Your task to perform on an android device: change timer sound Image 0: 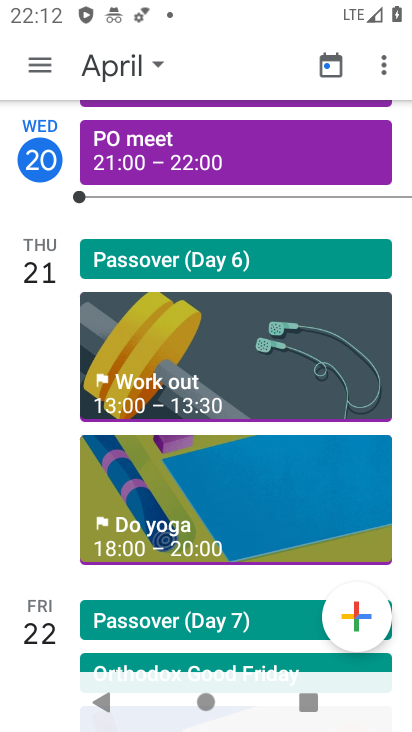
Step 0: press home button
Your task to perform on an android device: change timer sound Image 1: 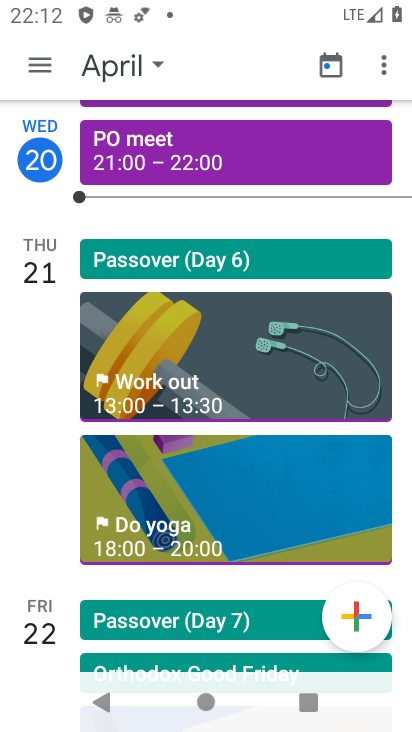
Step 1: press home button
Your task to perform on an android device: change timer sound Image 2: 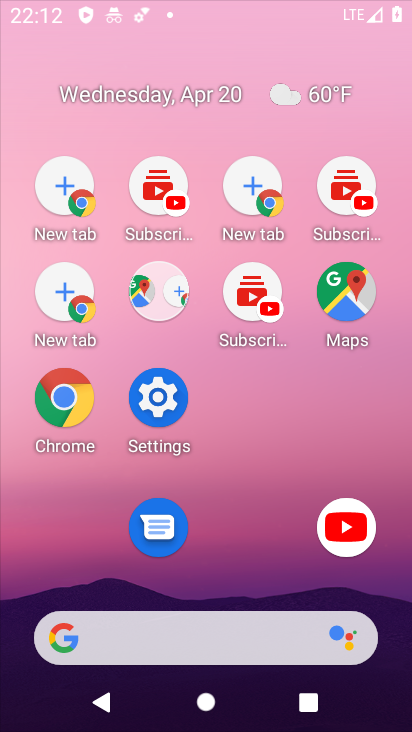
Step 2: press home button
Your task to perform on an android device: change timer sound Image 3: 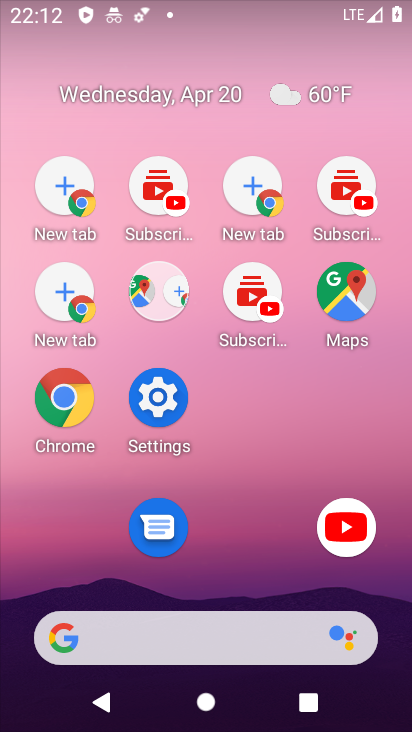
Step 3: drag from (315, 664) to (130, 42)
Your task to perform on an android device: change timer sound Image 4: 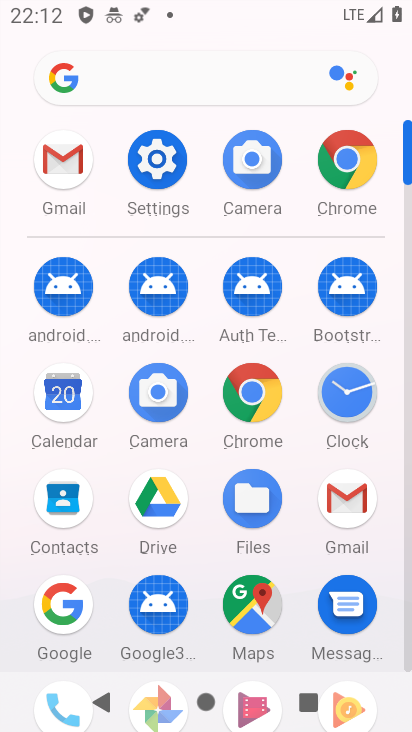
Step 4: click (352, 388)
Your task to perform on an android device: change timer sound Image 5: 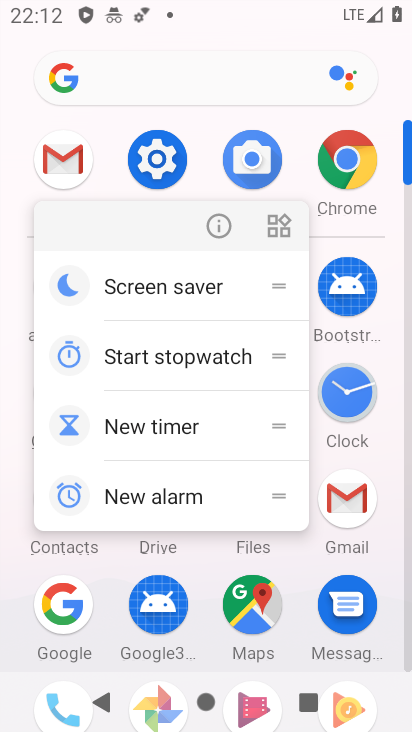
Step 5: click (351, 389)
Your task to perform on an android device: change timer sound Image 6: 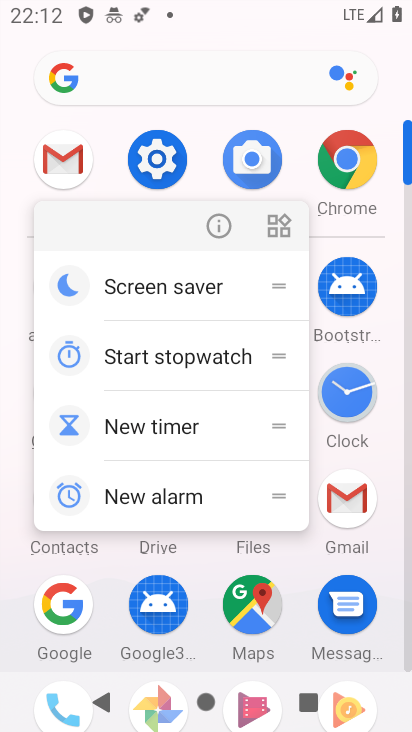
Step 6: click (333, 384)
Your task to perform on an android device: change timer sound Image 7: 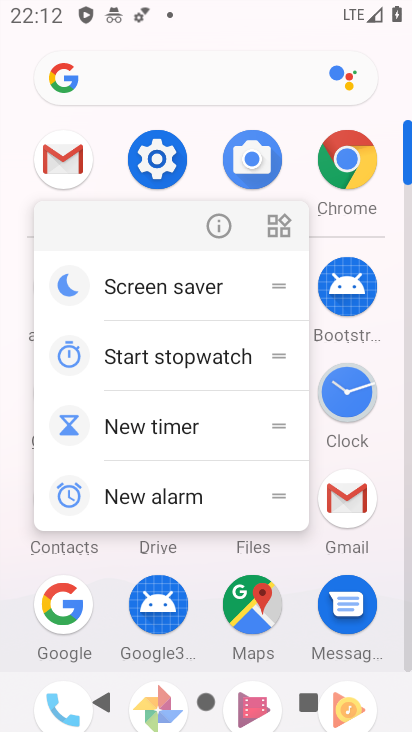
Step 7: click (341, 397)
Your task to perform on an android device: change timer sound Image 8: 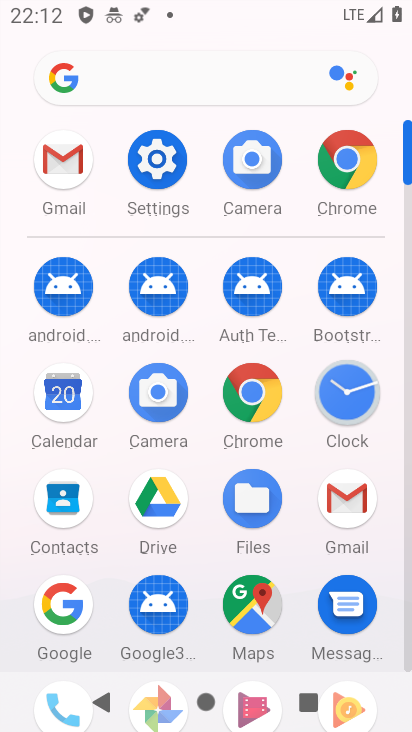
Step 8: click (350, 386)
Your task to perform on an android device: change timer sound Image 9: 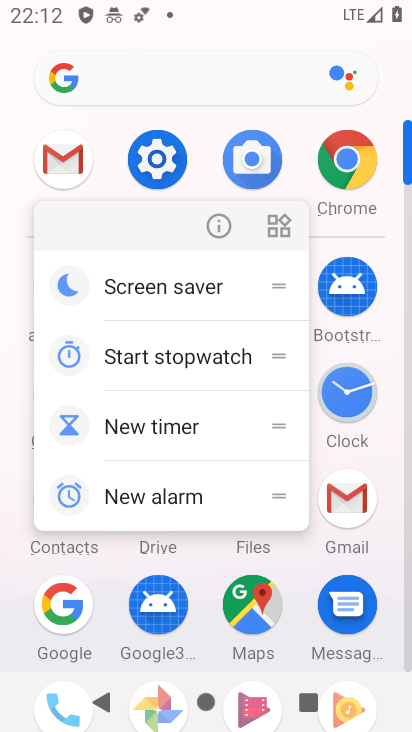
Step 9: click (403, 643)
Your task to perform on an android device: change timer sound Image 10: 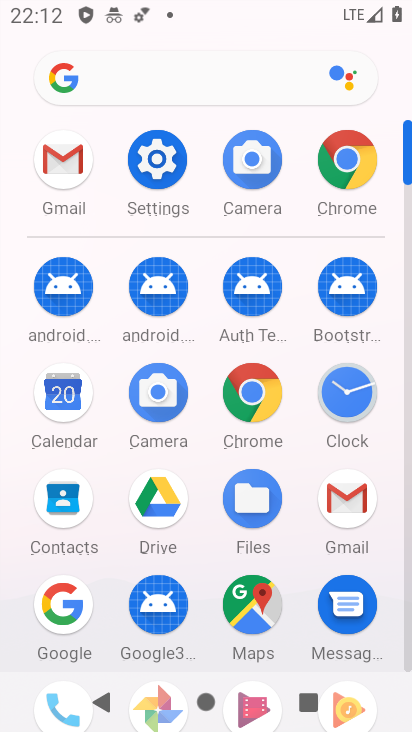
Step 10: click (400, 631)
Your task to perform on an android device: change timer sound Image 11: 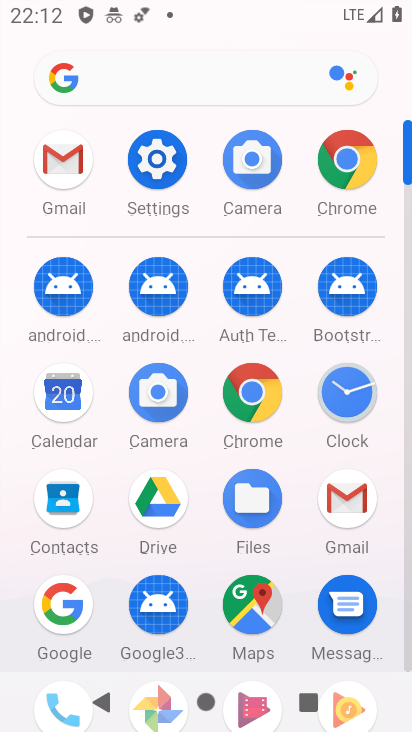
Step 11: click (398, 643)
Your task to perform on an android device: change timer sound Image 12: 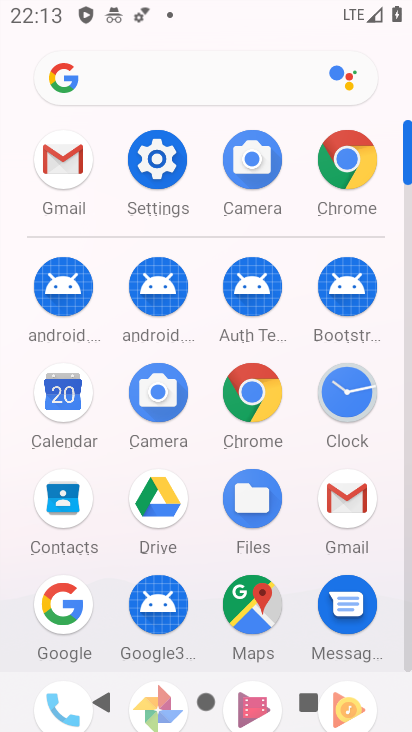
Step 12: click (404, 645)
Your task to perform on an android device: change timer sound Image 13: 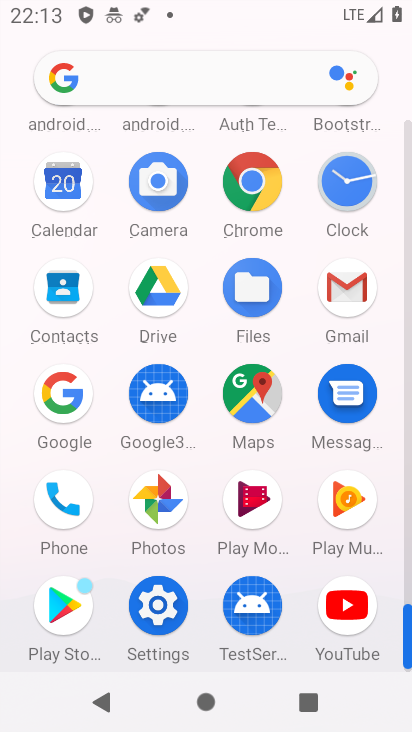
Step 13: click (357, 179)
Your task to perform on an android device: change timer sound Image 14: 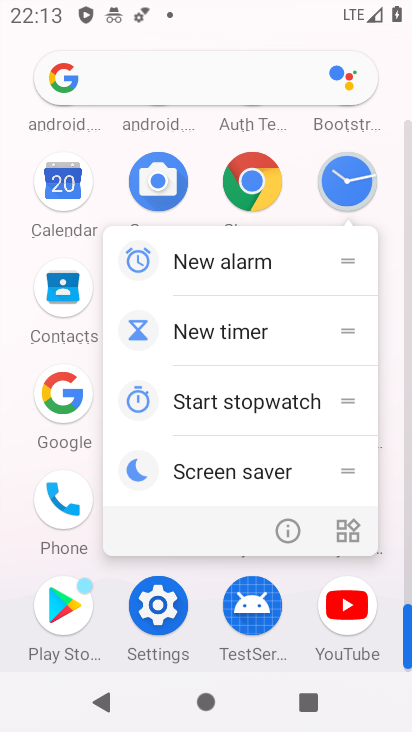
Step 14: click (356, 185)
Your task to perform on an android device: change timer sound Image 15: 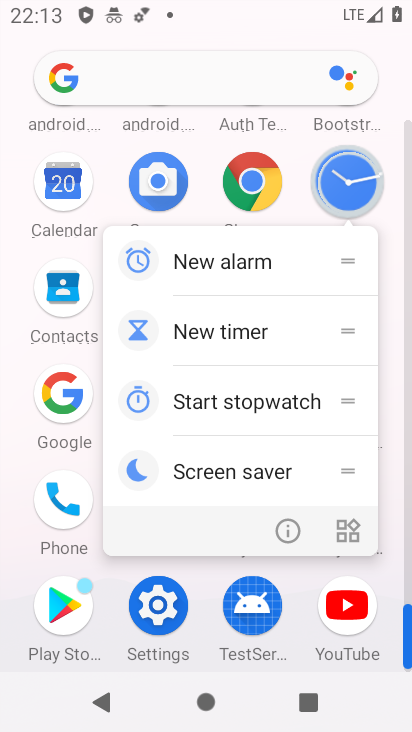
Step 15: click (354, 159)
Your task to perform on an android device: change timer sound Image 16: 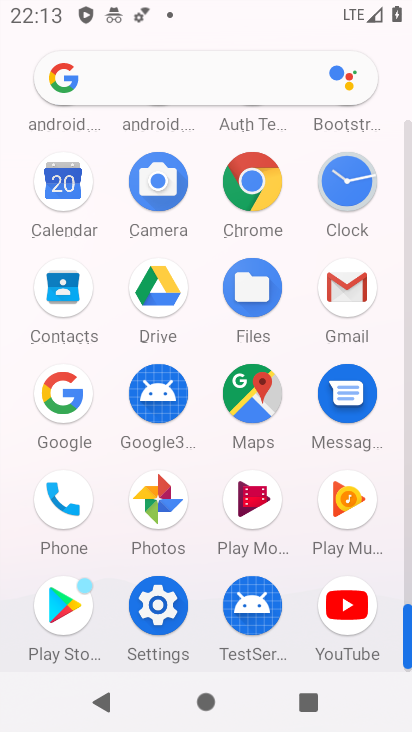
Step 16: click (351, 178)
Your task to perform on an android device: change timer sound Image 17: 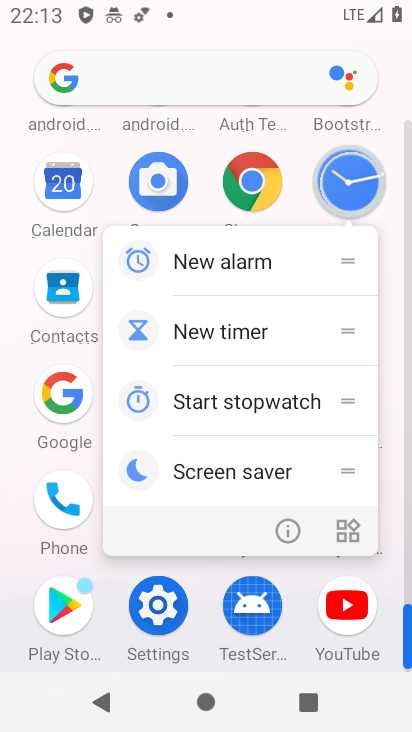
Step 17: click (344, 170)
Your task to perform on an android device: change timer sound Image 18: 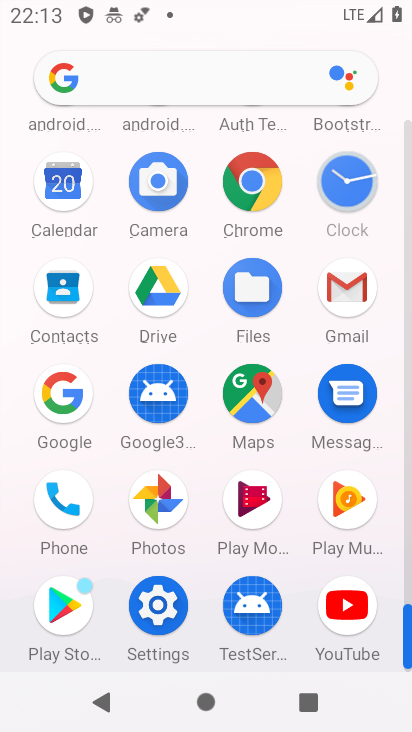
Step 18: click (352, 178)
Your task to perform on an android device: change timer sound Image 19: 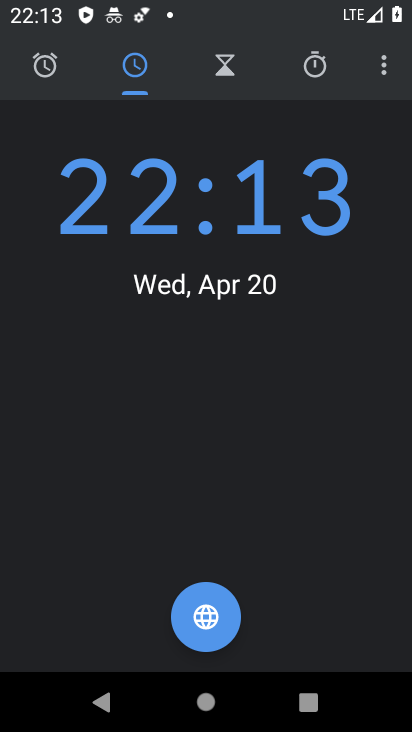
Step 19: click (388, 62)
Your task to perform on an android device: change timer sound Image 20: 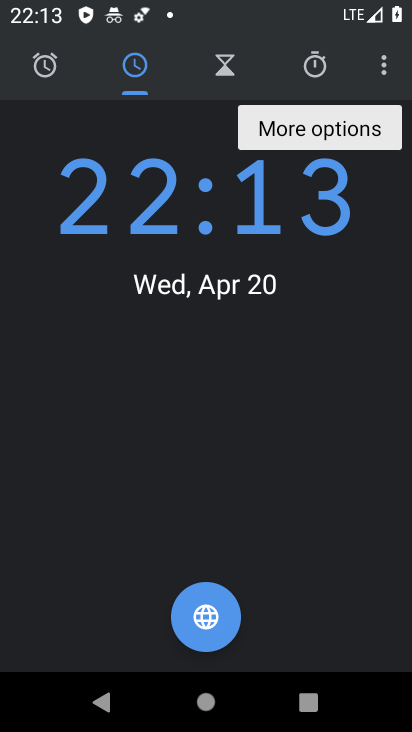
Step 20: click (386, 61)
Your task to perform on an android device: change timer sound Image 21: 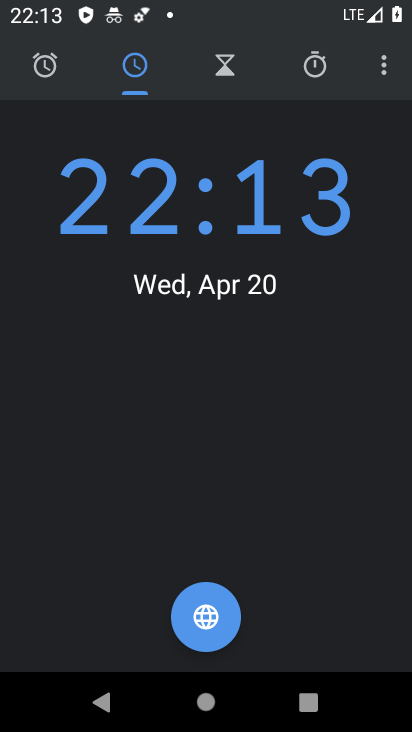
Step 21: click (383, 69)
Your task to perform on an android device: change timer sound Image 22: 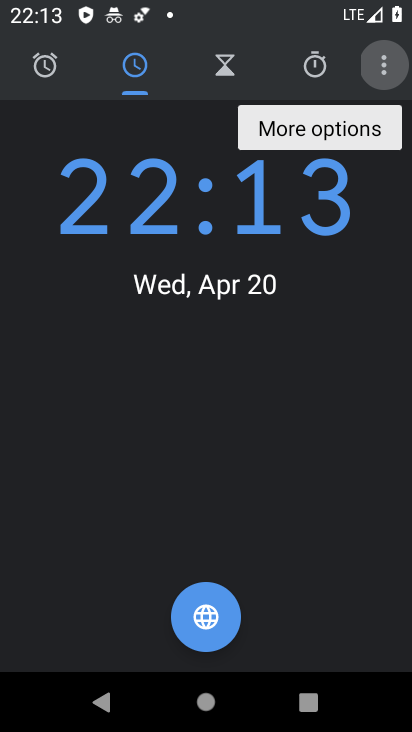
Step 22: click (385, 66)
Your task to perform on an android device: change timer sound Image 23: 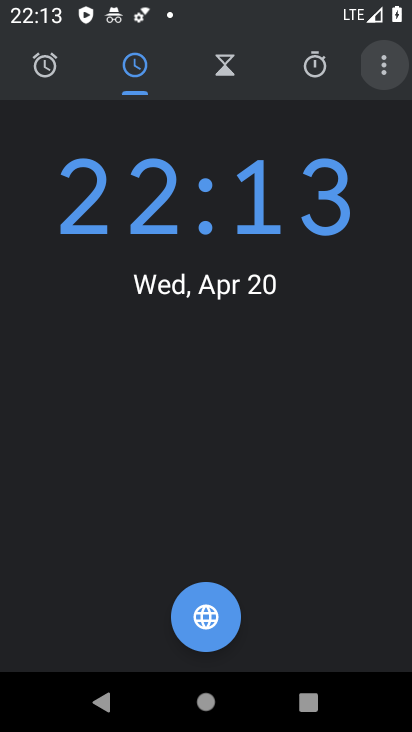
Step 23: click (386, 65)
Your task to perform on an android device: change timer sound Image 24: 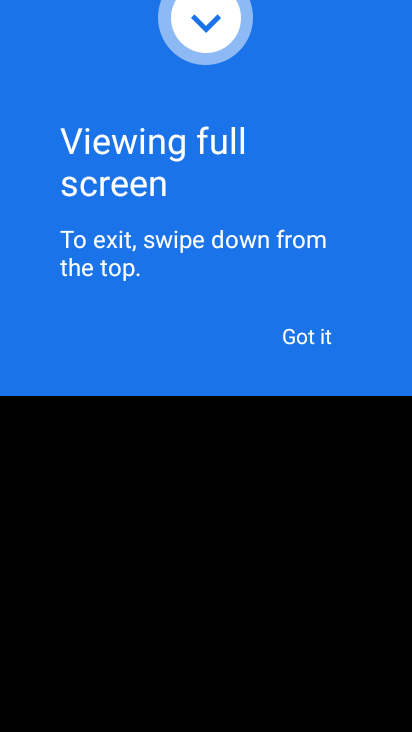
Step 24: click (300, 327)
Your task to perform on an android device: change timer sound Image 25: 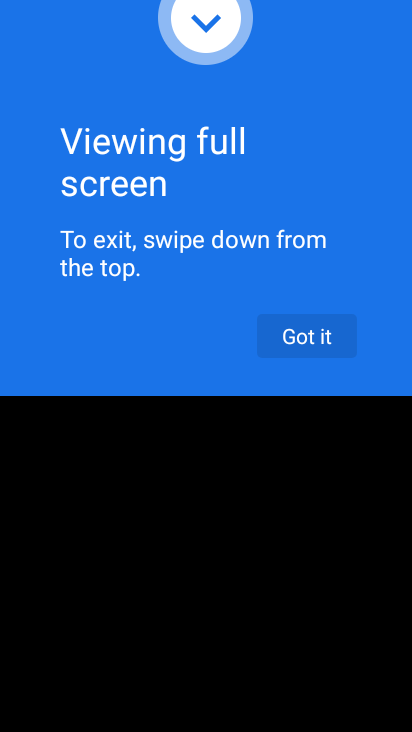
Step 25: click (306, 337)
Your task to perform on an android device: change timer sound Image 26: 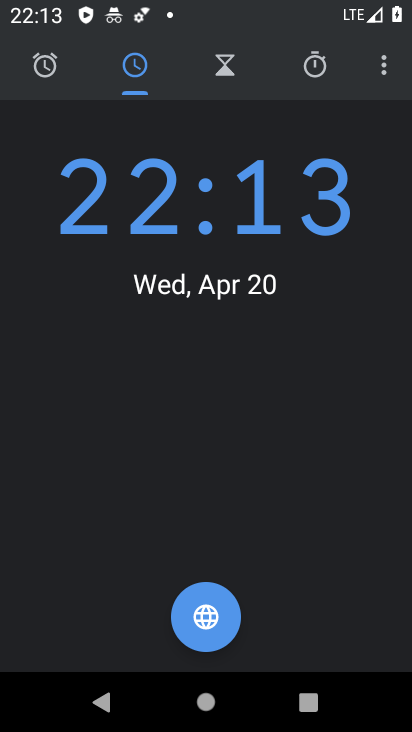
Step 26: click (385, 72)
Your task to perform on an android device: change timer sound Image 27: 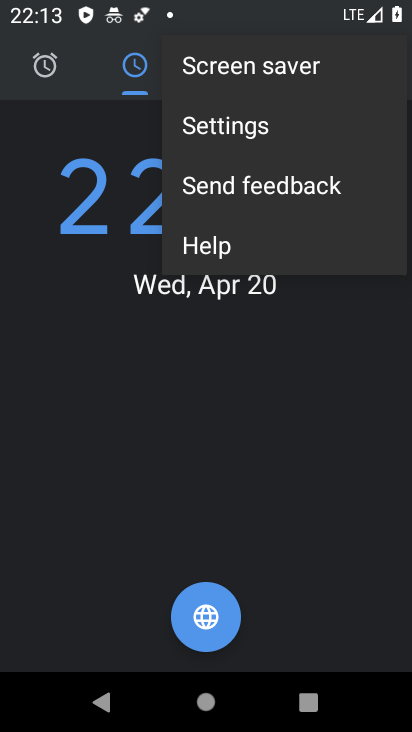
Step 27: click (222, 129)
Your task to perform on an android device: change timer sound Image 28: 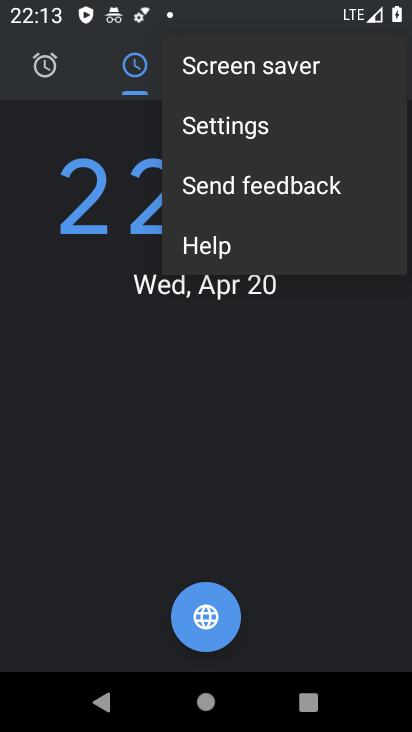
Step 28: click (228, 117)
Your task to perform on an android device: change timer sound Image 29: 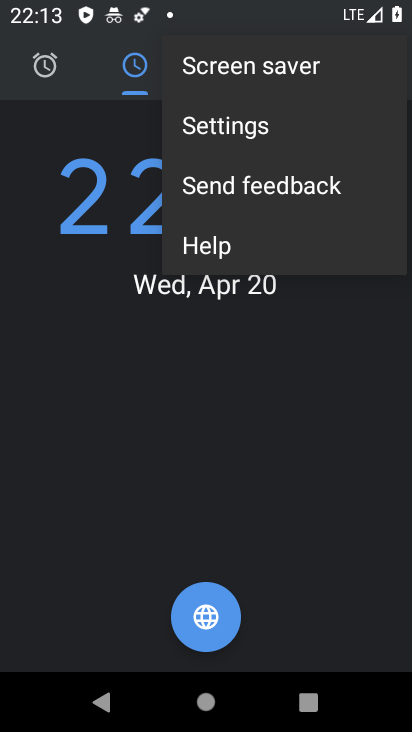
Step 29: click (232, 128)
Your task to perform on an android device: change timer sound Image 30: 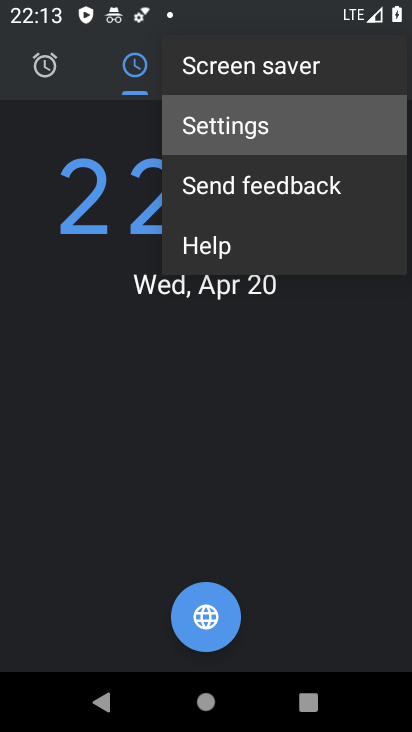
Step 30: click (234, 124)
Your task to perform on an android device: change timer sound Image 31: 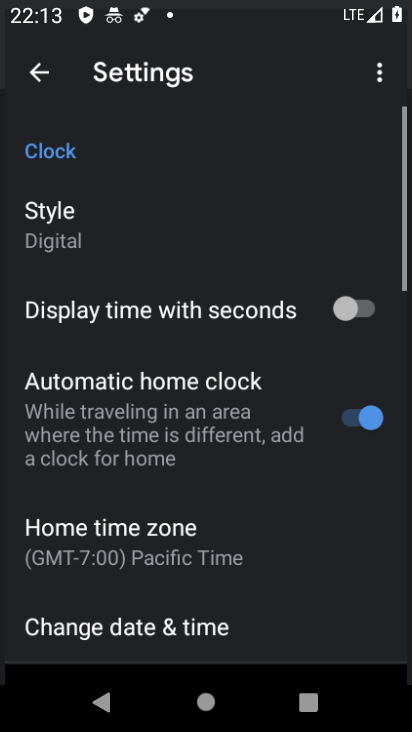
Step 31: click (234, 124)
Your task to perform on an android device: change timer sound Image 32: 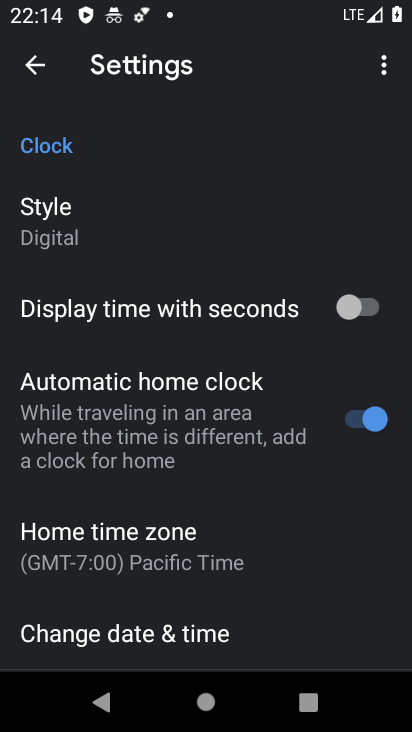
Step 32: drag from (250, 477) to (242, 110)
Your task to perform on an android device: change timer sound Image 33: 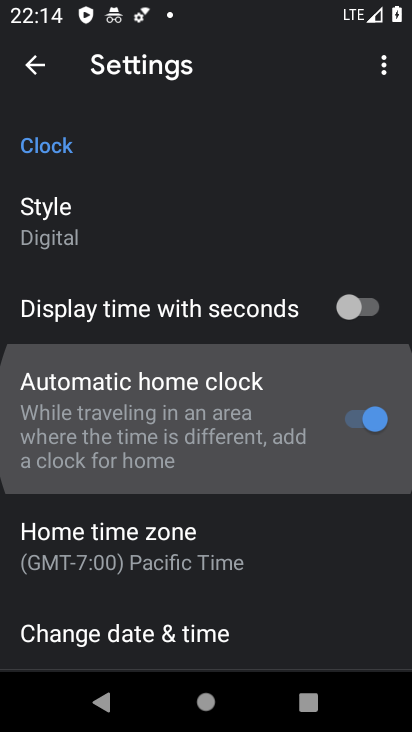
Step 33: drag from (286, 224) to (286, 140)
Your task to perform on an android device: change timer sound Image 34: 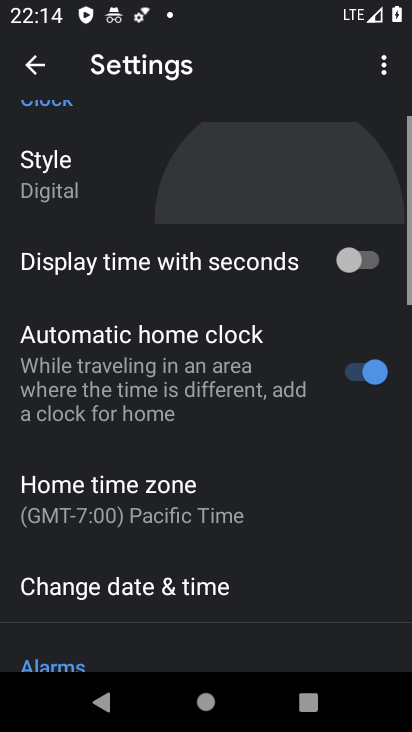
Step 34: drag from (255, 396) to (206, 52)
Your task to perform on an android device: change timer sound Image 35: 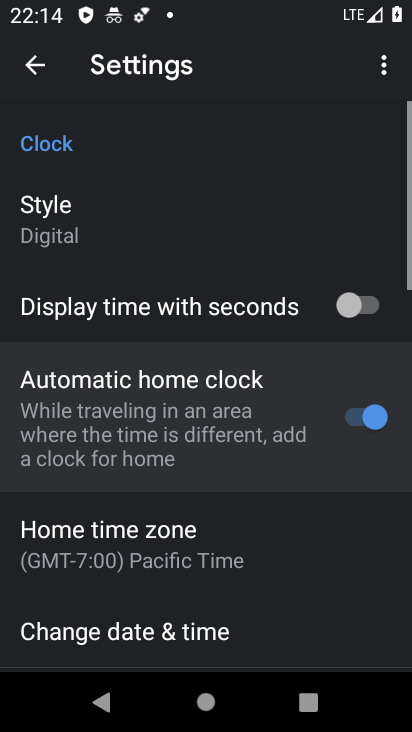
Step 35: drag from (195, 397) to (217, 17)
Your task to perform on an android device: change timer sound Image 36: 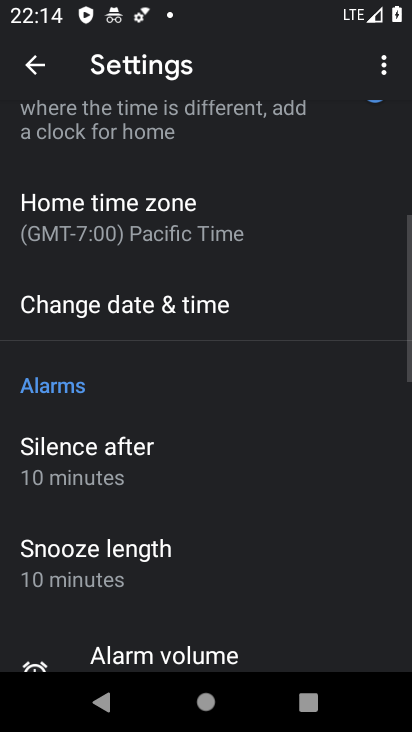
Step 36: drag from (220, 353) to (199, 152)
Your task to perform on an android device: change timer sound Image 37: 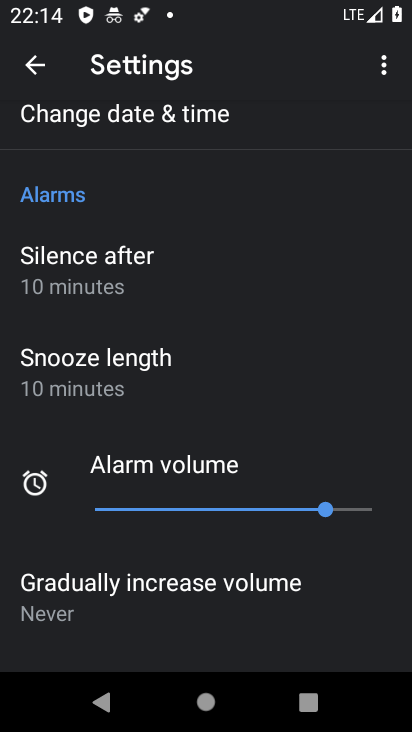
Step 37: drag from (224, 496) to (202, 250)
Your task to perform on an android device: change timer sound Image 38: 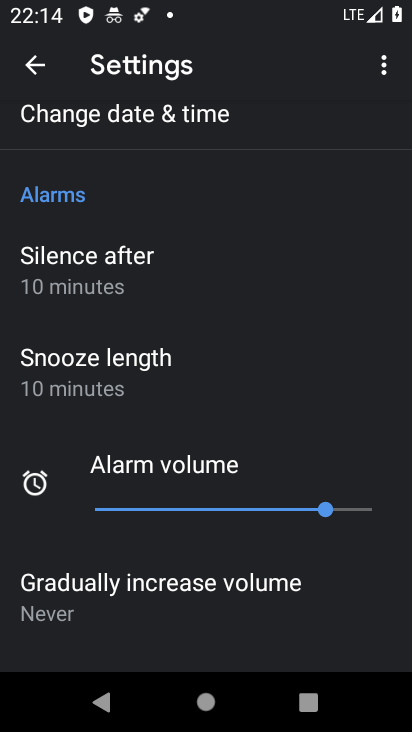
Step 38: drag from (199, 442) to (199, 204)
Your task to perform on an android device: change timer sound Image 39: 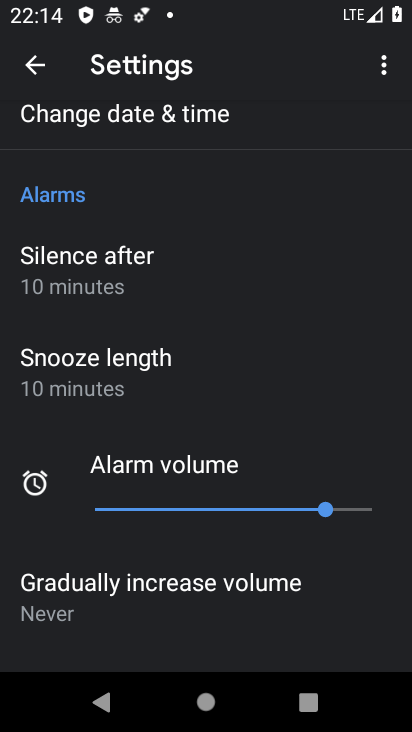
Step 39: drag from (226, 309) to (200, 75)
Your task to perform on an android device: change timer sound Image 40: 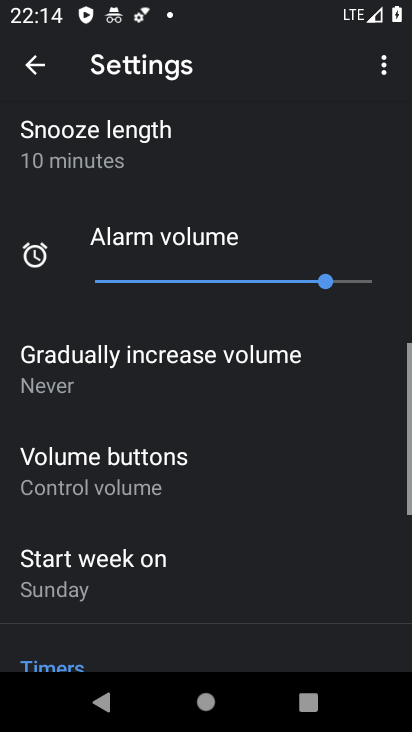
Step 40: drag from (141, 312) to (66, 59)
Your task to perform on an android device: change timer sound Image 41: 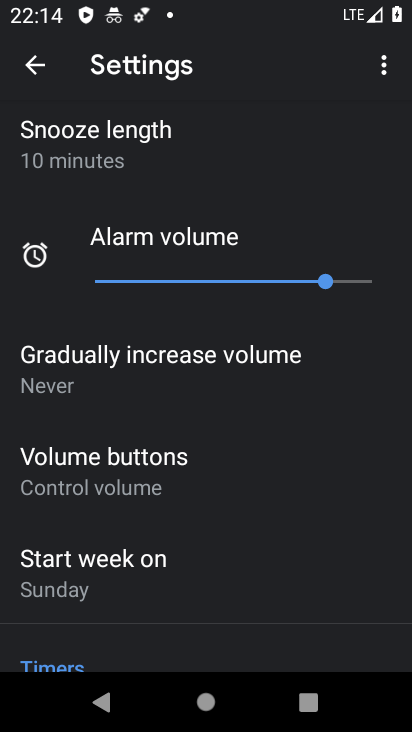
Step 41: drag from (198, 566) to (223, 51)
Your task to perform on an android device: change timer sound Image 42: 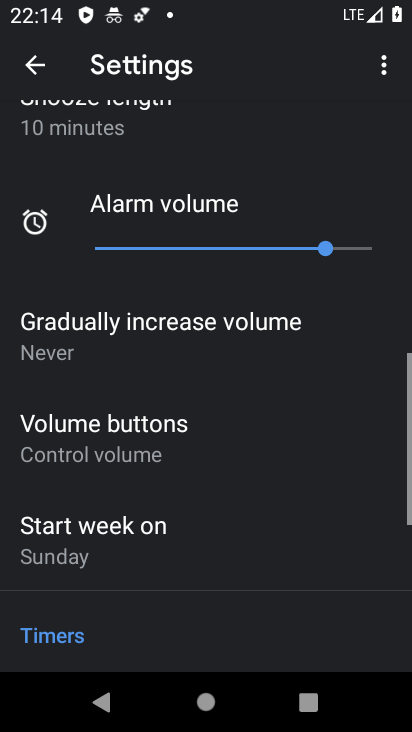
Step 42: drag from (237, 473) to (170, 81)
Your task to perform on an android device: change timer sound Image 43: 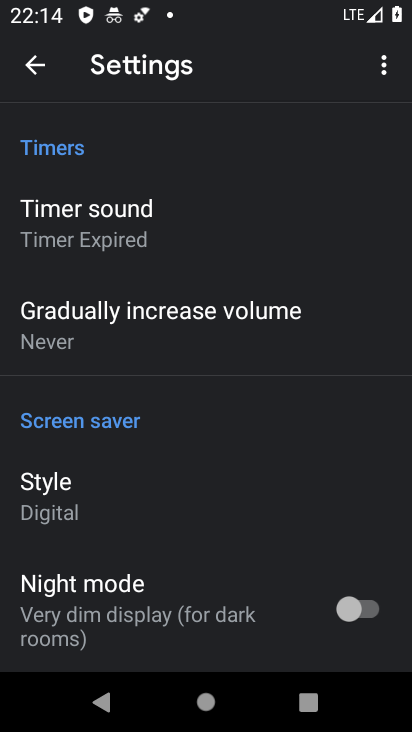
Step 43: click (59, 236)
Your task to perform on an android device: change timer sound Image 44: 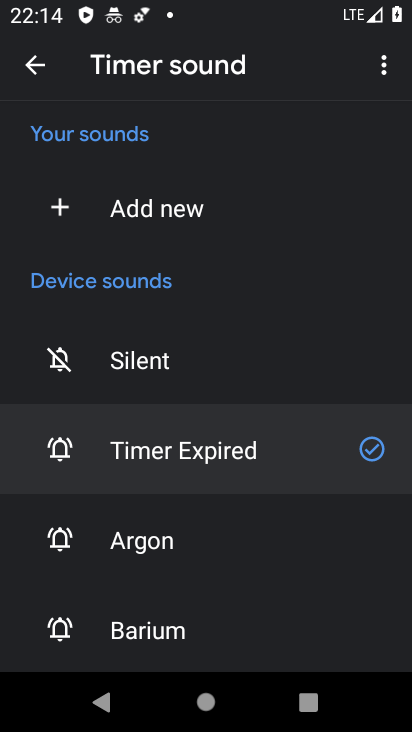
Step 44: click (58, 543)
Your task to perform on an android device: change timer sound Image 45: 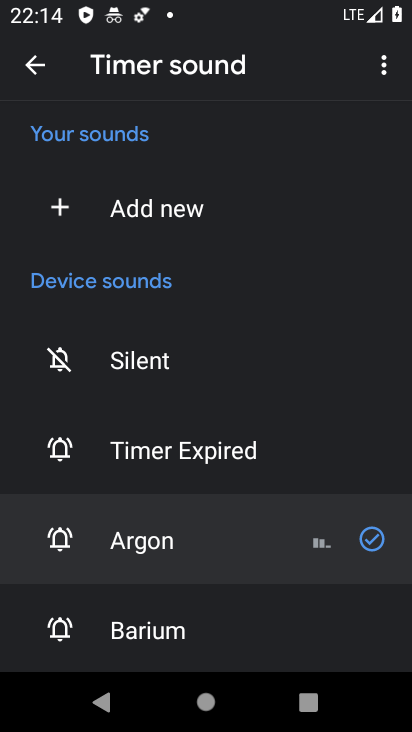
Step 45: task complete